Your task to perform on an android device: Open privacy settings Image 0: 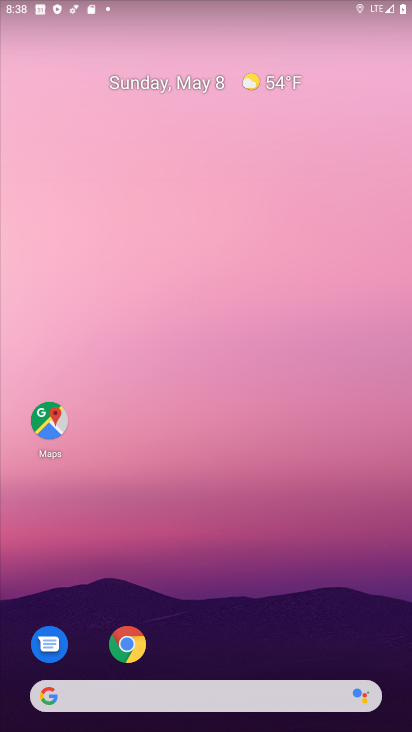
Step 0: drag from (253, 89) to (112, 53)
Your task to perform on an android device: Open privacy settings Image 1: 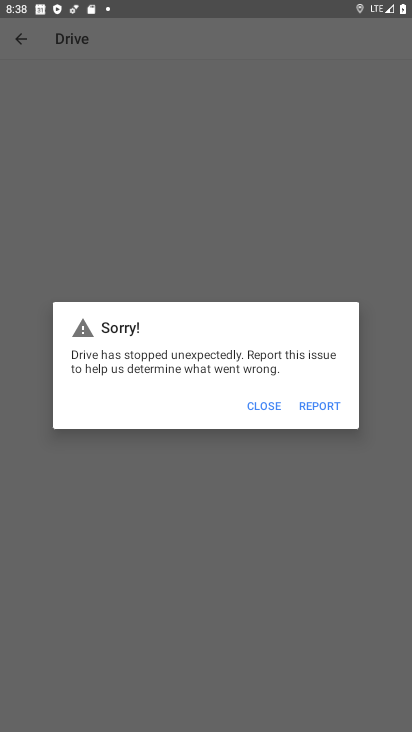
Step 1: press home button
Your task to perform on an android device: Open privacy settings Image 2: 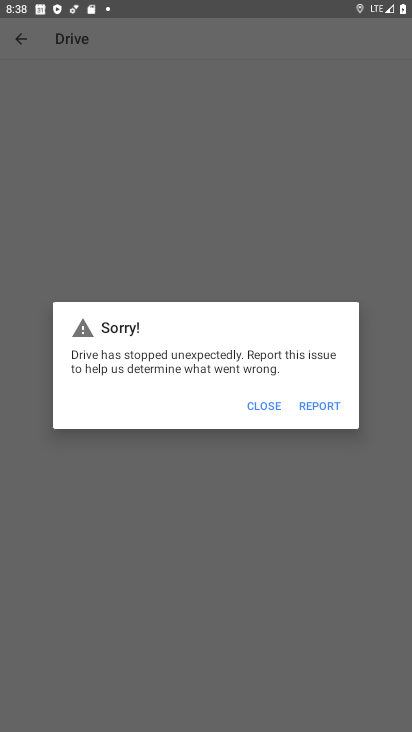
Step 2: press home button
Your task to perform on an android device: Open privacy settings Image 3: 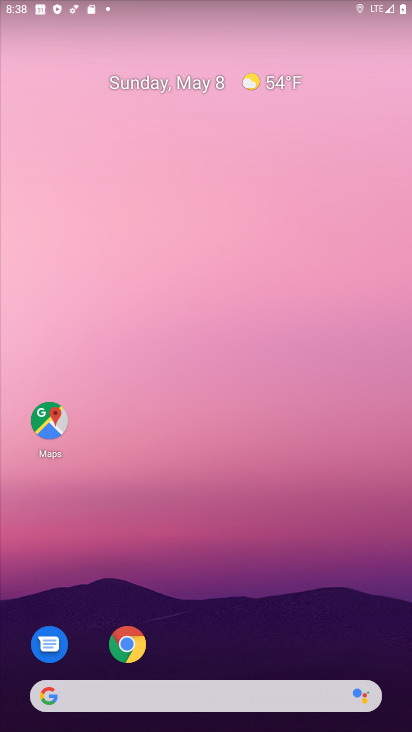
Step 3: drag from (194, 636) to (321, 62)
Your task to perform on an android device: Open privacy settings Image 4: 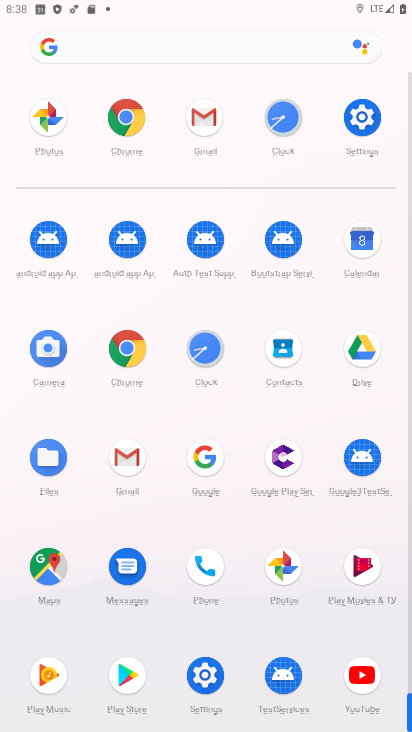
Step 4: click (209, 659)
Your task to perform on an android device: Open privacy settings Image 5: 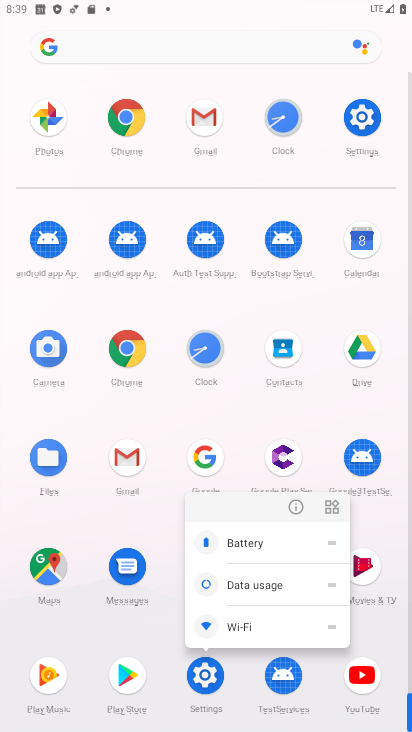
Step 5: click (285, 504)
Your task to perform on an android device: Open privacy settings Image 6: 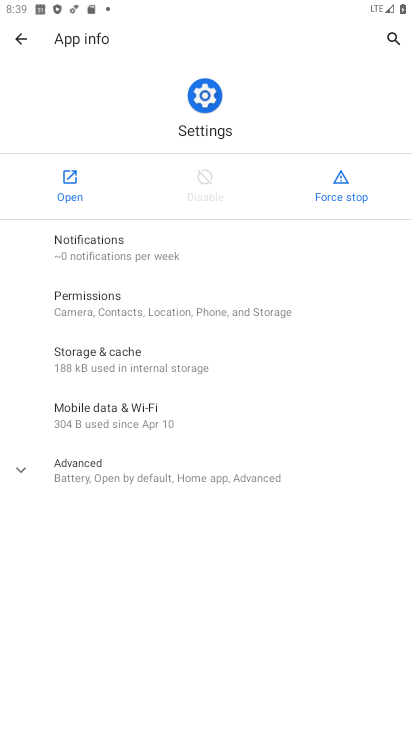
Step 6: click (74, 182)
Your task to perform on an android device: Open privacy settings Image 7: 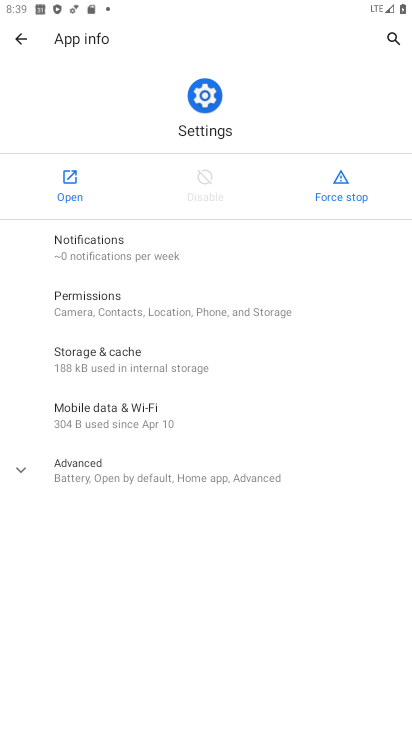
Step 7: click (72, 181)
Your task to perform on an android device: Open privacy settings Image 8: 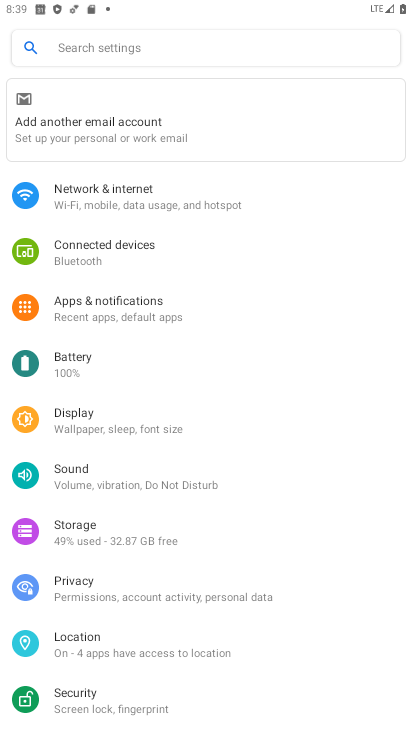
Step 8: drag from (138, 590) to (273, 219)
Your task to perform on an android device: Open privacy settings Image 9: 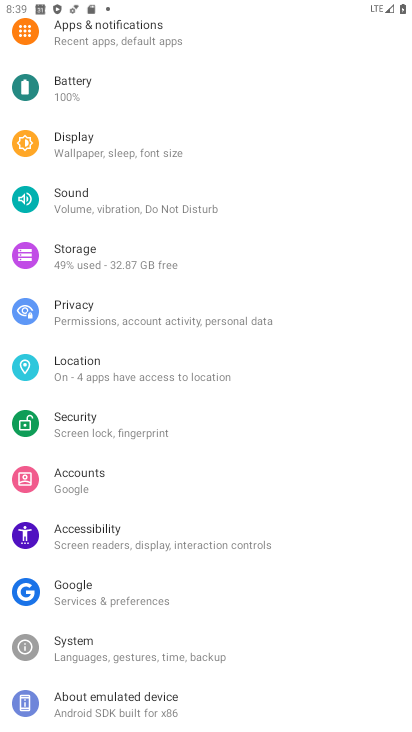
Step 9: click (95, 310)
Your task to perform on an android device: Open privacy settings Image 10: 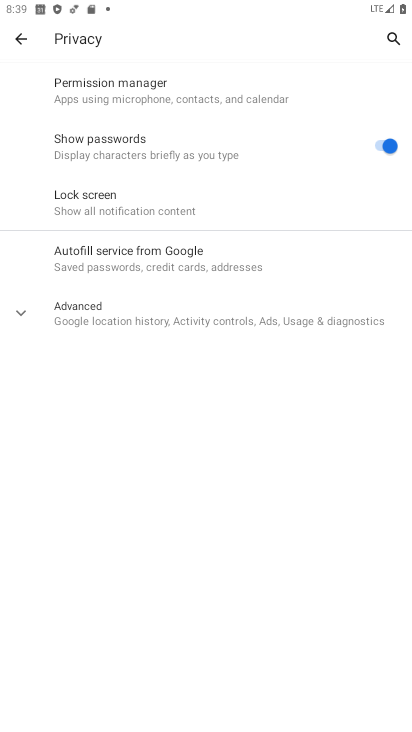
Step 10: task complete